Your task to perform on an android device: Turn off the flashlight Image 0: 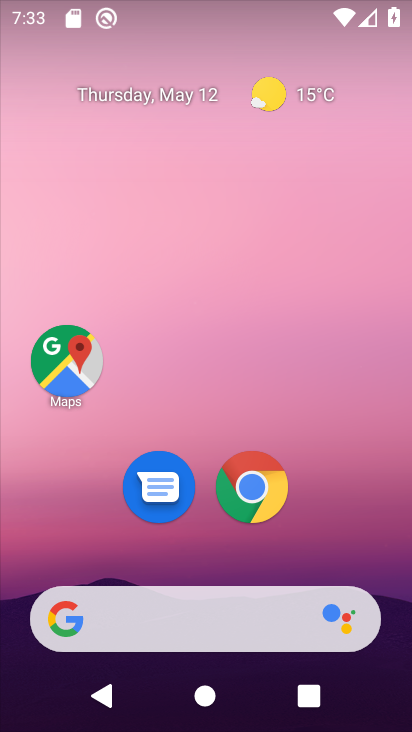
Step 0: click (303, 2)
Your task to perform on an android device: Turn off the flashlight Image 1: 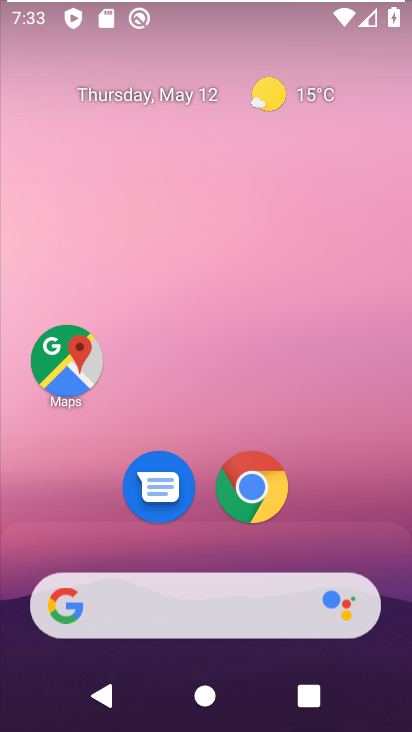
Step 1: drag from (360, 490) to (400, 1)
Your task to perform on an android device: Turn off the flashlight Image 2: 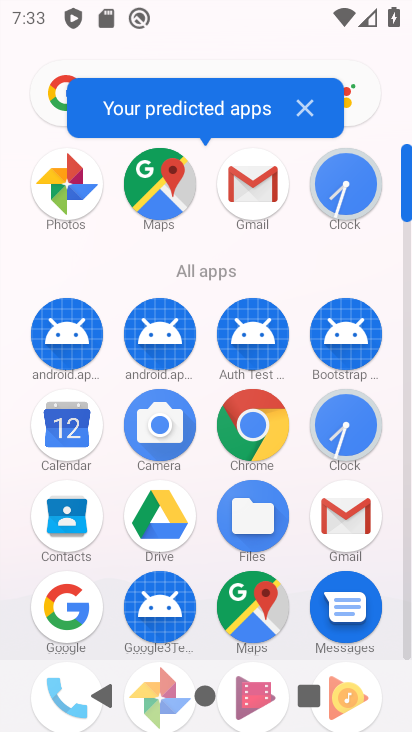
Step 2: drag from (379, 600) to (402, 121)
Your task to perform on an android device: Turn off the flashlight Image 3: 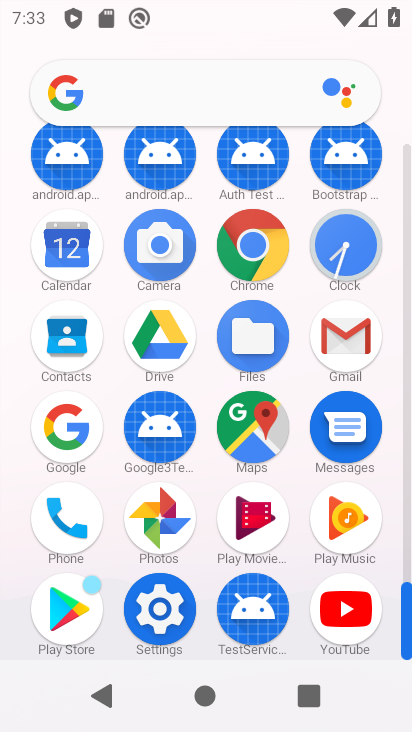
Step 3: drag from (370, 607) to (381, 179)
Your task to perform on an android device: Turn off the flashlight Image 4: 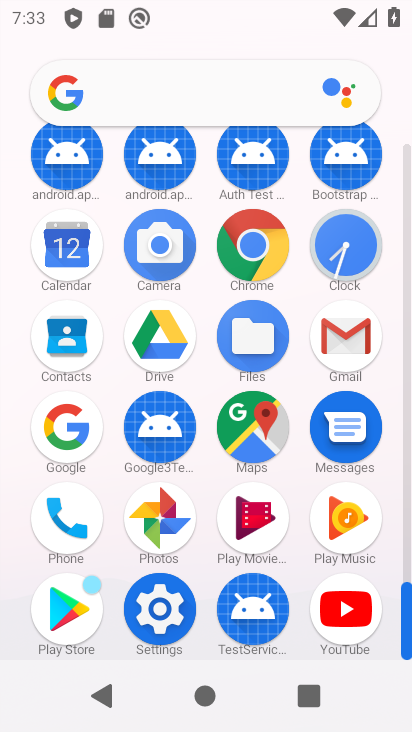
Step 4: click (156, 607)
Your task to perform on an android device: Turn off the flashlight Image 5: 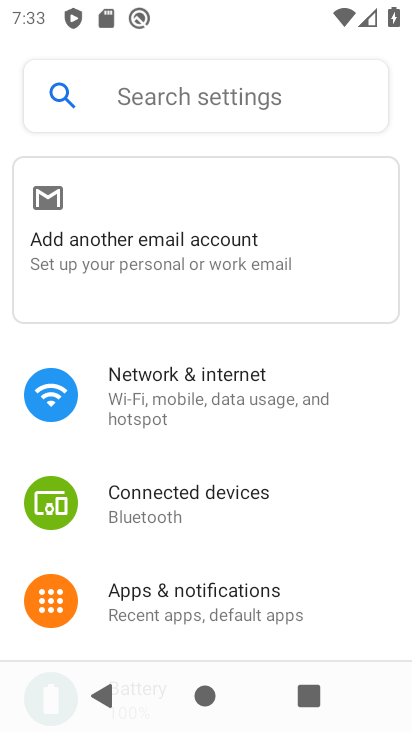
Step 5: task complete